Your task to perform on an android device: Do I have any events tomorrow? Image 0: 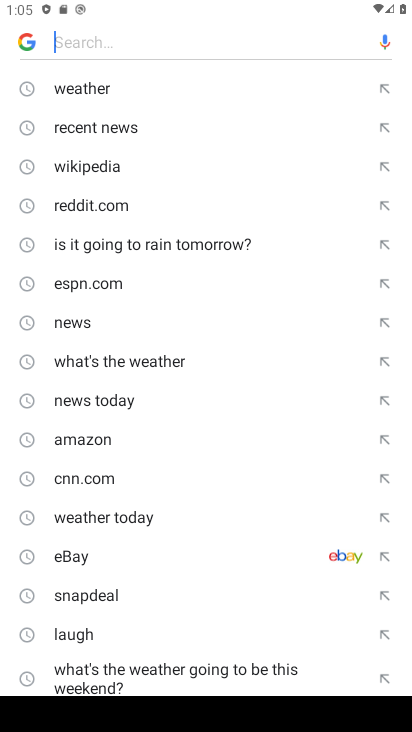
Step 0: press home button
Your task to perform on an android device: Do I have any events tomorrow? Image 1: 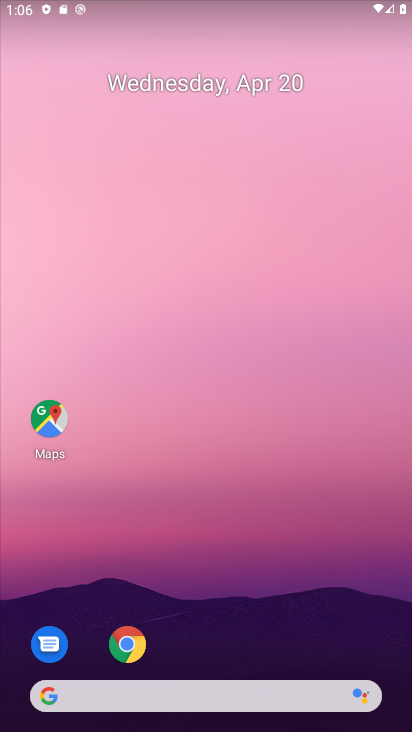
Step 1: drag from (323, 657) to (297, 66)
Your task to perform on an android device: Do I have any events tomorrow? Image 2: 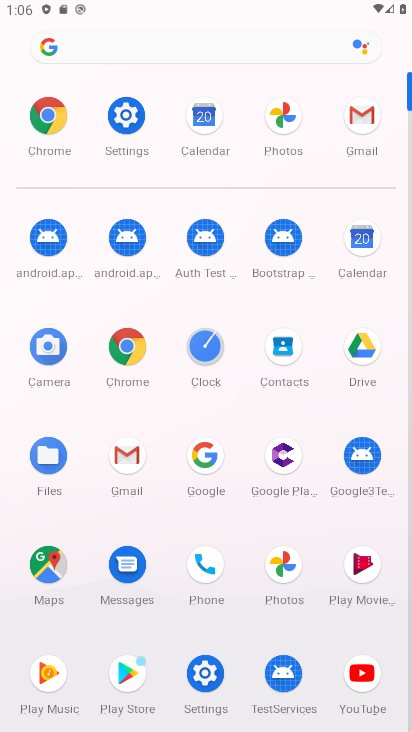
Step 2: click (208, 120)
Your task to perform on an android device: Do I have any events tomorrow? Image 3: 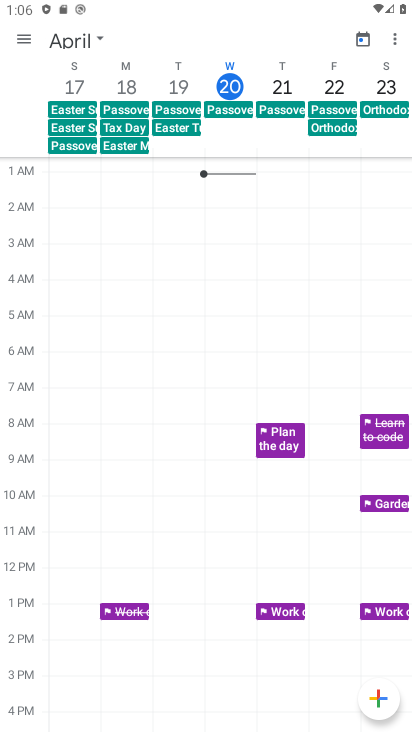
Step 3: task complete